Your task to perform on an android device: Go to display settings Image 0: 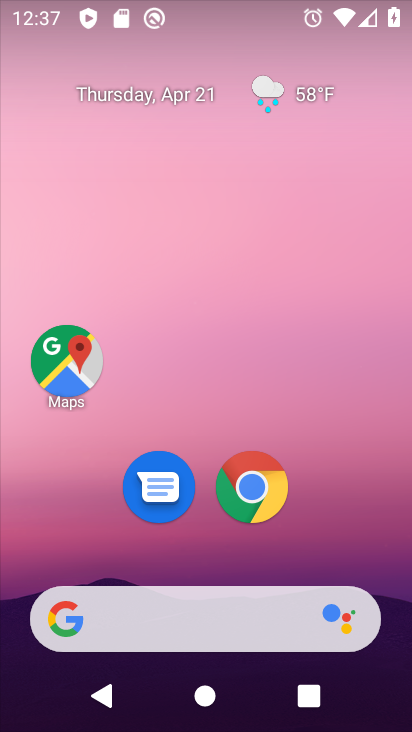
Step 0: drag from (371, 555) to (377, 2)
Your task to perform on an android device: Go to display settings Image 1: 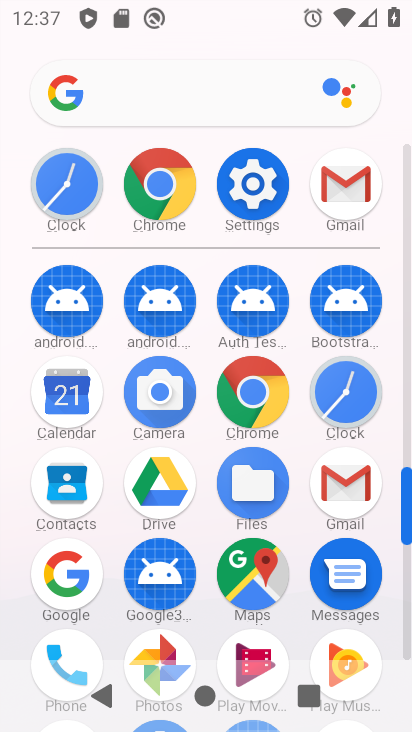
Step 1: click (259, 191)
Your task to perform on an android device: Go to display settings Image 2: 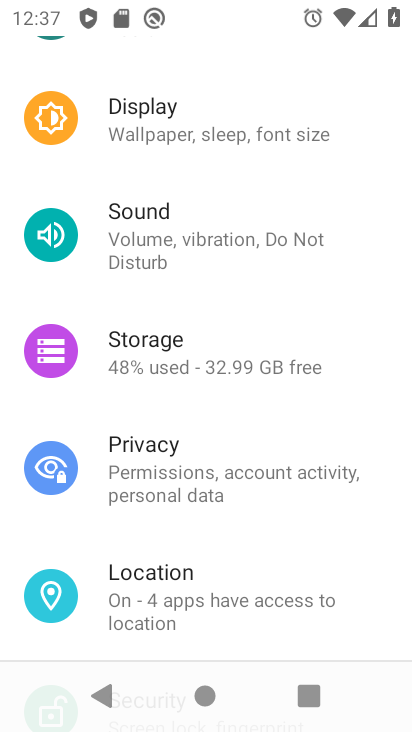
Step 2: click (136, 121)
Your task to perform on an android device: Go to display settings Image 3: 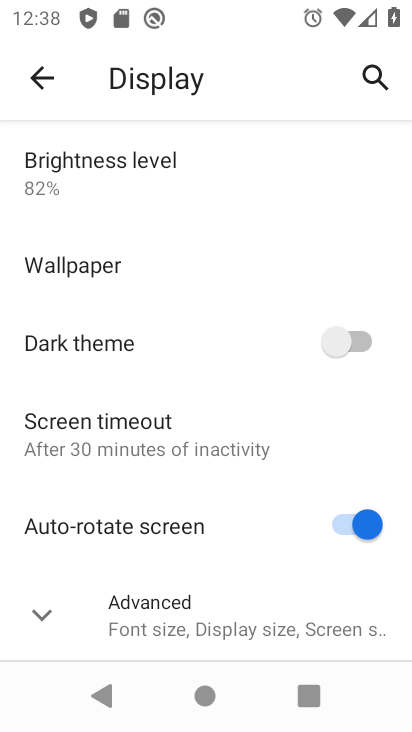
Step 3: task complete